Your task to perform on an android device: set the timer Image 0: 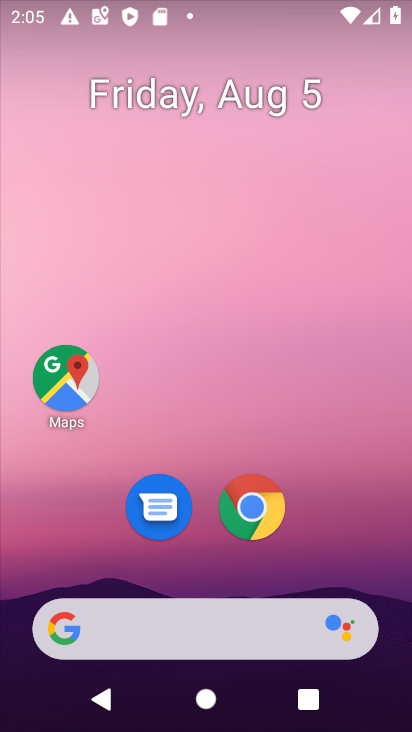
Step 0: drag from (316, 555) to (357, 0)
Your task to perform on an android device: set the timer Image 1: 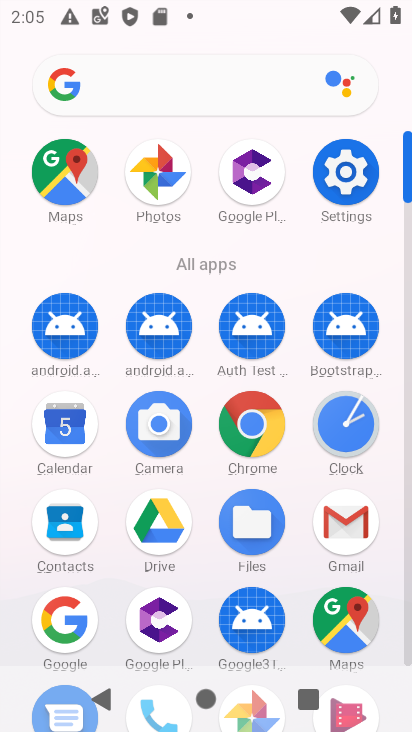
Step 1: click (336, 419)
Your task to perform on an android device: set the timer Image 2: 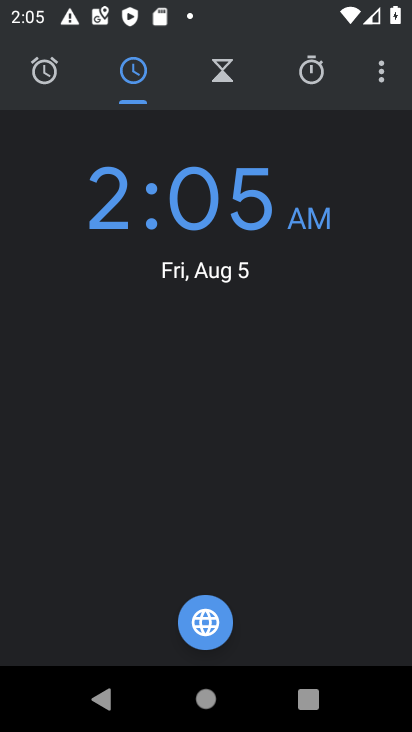
Step 2: click (231, 75)
Your task to perform on an android device: set the timer Image 3: 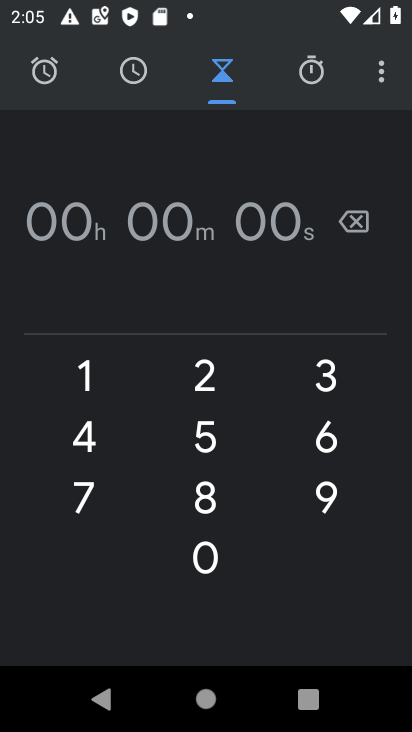
Step 3: click (98, 369)
Your task to perform on an android device: set the timer Image 4: 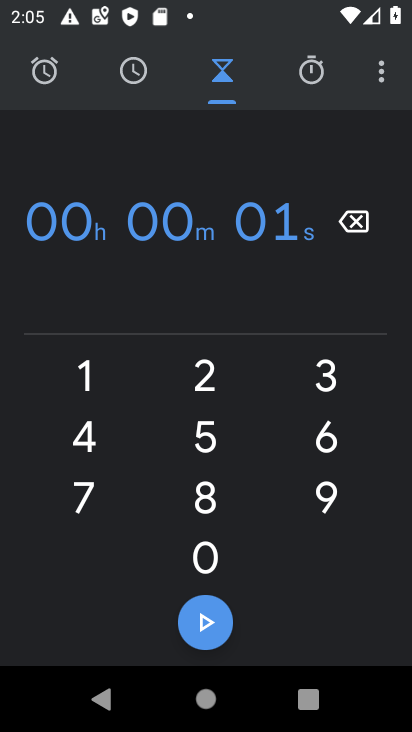
Step 4: click (193, 369)
Your task to perform on an android device: set the timer Image 5: 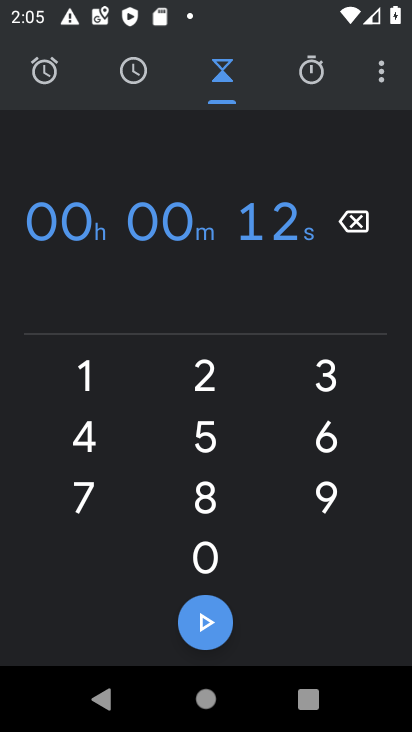
Step 5: click (320, 369)
Your task to perform on an android device: set the timer Image 6: 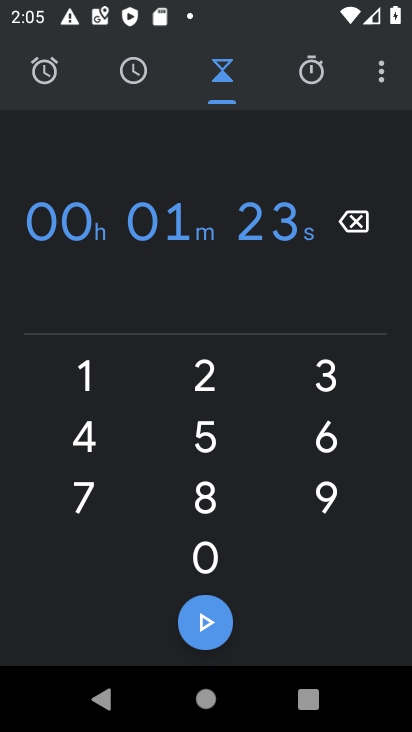
Step 6: click (325, 427)
Your task to perform on an android device: set the timer Image 7: 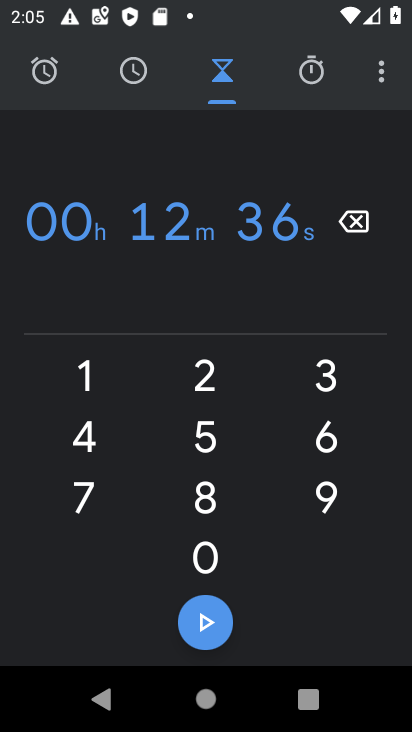
Step 7: click (223, 444)
Your task to perform on an android device: set the timer Image 8: 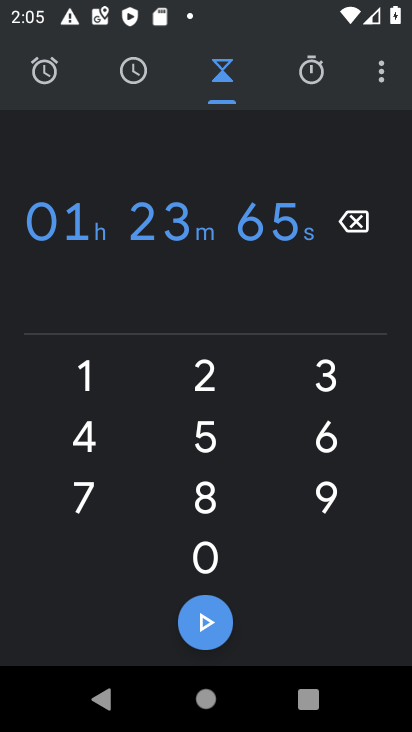
Step 8: click (111, 439)
Your task to perform on an android device: set the timer Image 9: 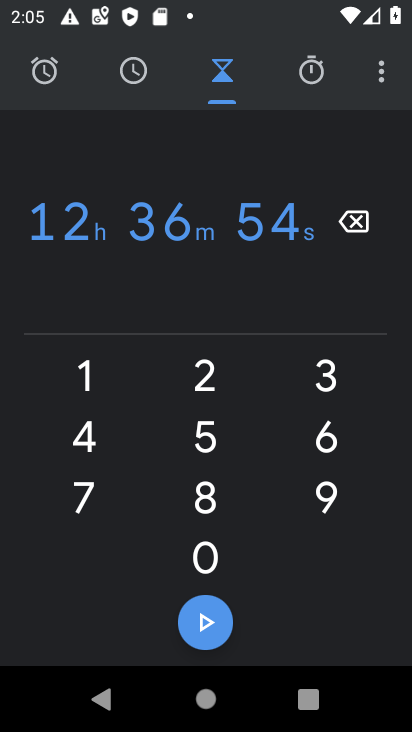
Step 9: click (215, 623)
Your task to perform on an android device: set the timer Image 10: 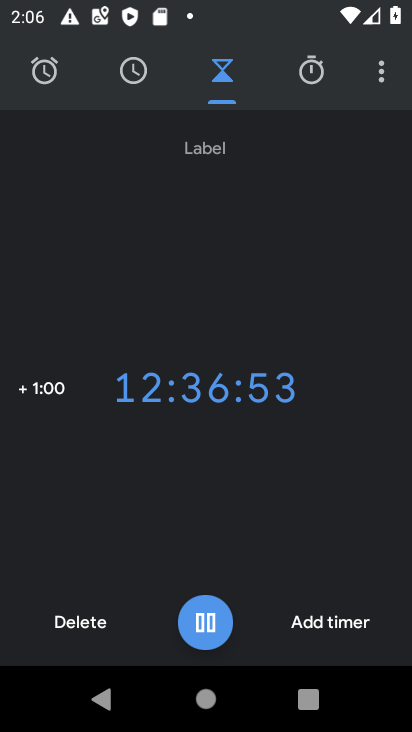
Step 10: task complete